Your task to perform on an android device: find photos in the google photos app Image 0: 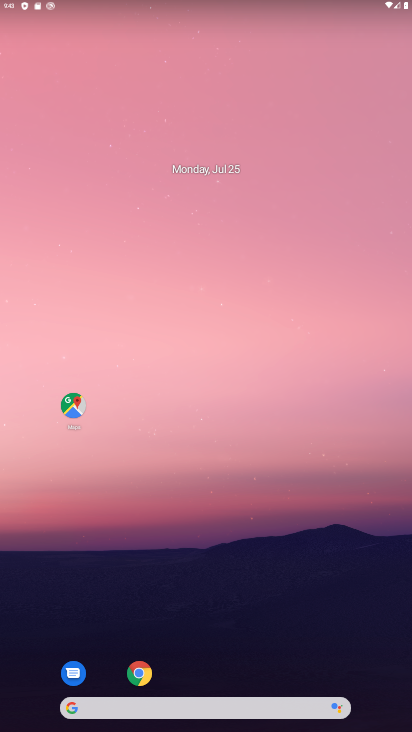
Step 0: drag from (262, 638) to (328, 38)
Your task to perform on an android device: find photos in the google photos app Image 1: 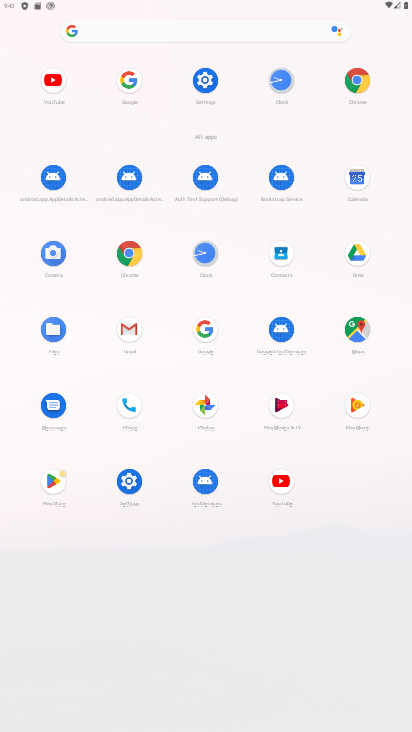
Step 1: click (203, 331)
Your task to perform on an android device: find photos in the google photos app Image 2: 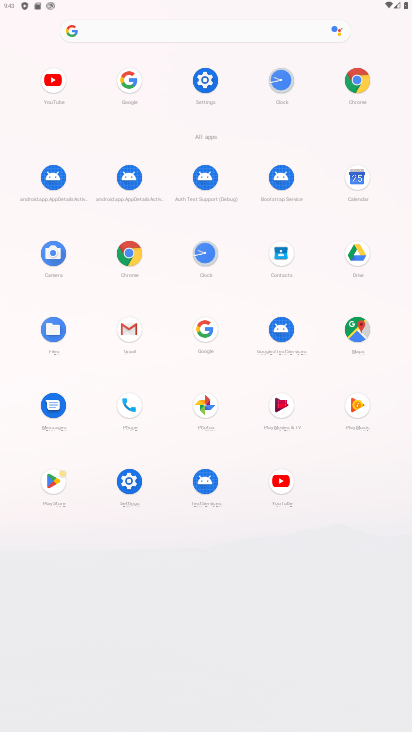
Step 2: click (210, 407)
Your task to perform on an android device: find photos in the google photos app Image 3: 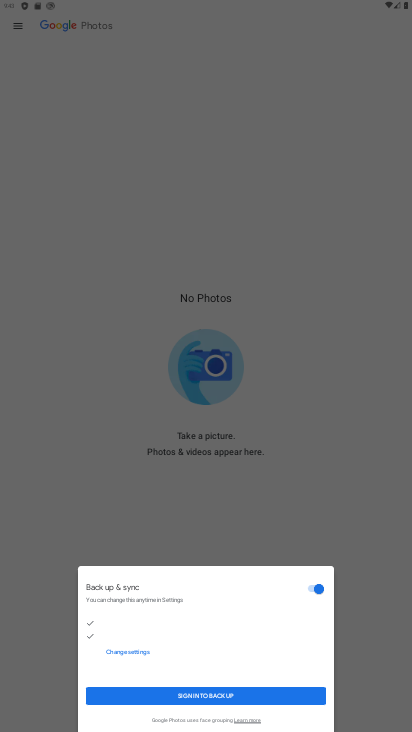
Step 3: click (190, 690)
Your task to perform on an android device: find photos in the google photos app Image 4: 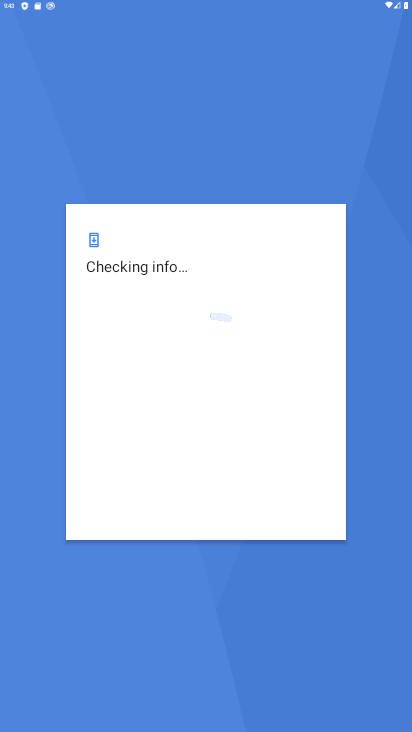
Step 4: task complete